Your task to perform on an android device: open a new tab in the chrome app Image 0: 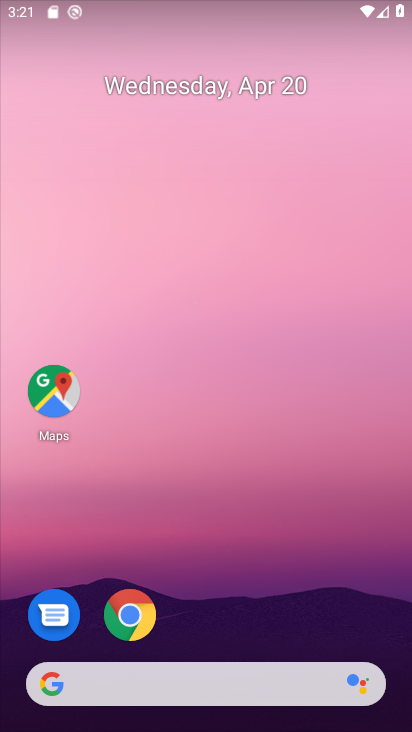
Step 0: click (131, 615)
Your task to perform on an android device: open a new tab in the chrome app Image 1: 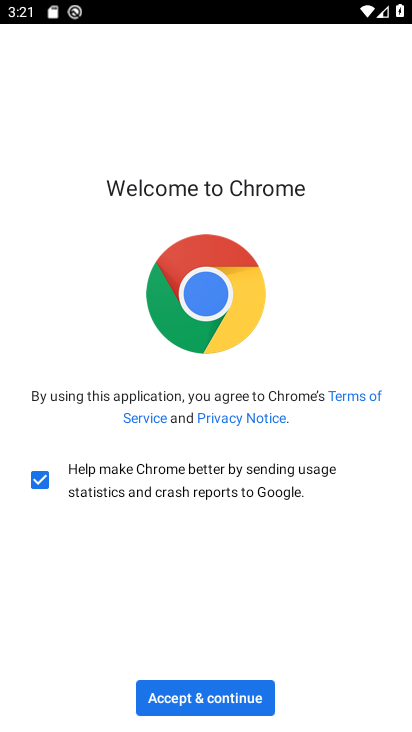
Step 1: click (221, 687)
Your task to perform on an android device: open a new tab in the chrome app Image 2: 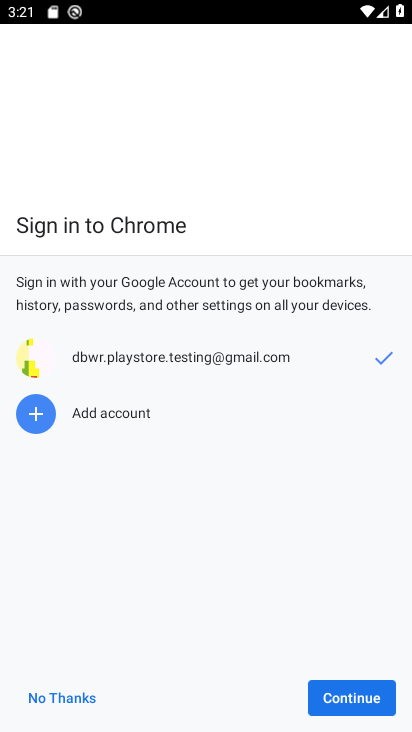
Step 2: click (363, 693)
Your task to perform on an android device: open a new tab in the chrome app Image 3: 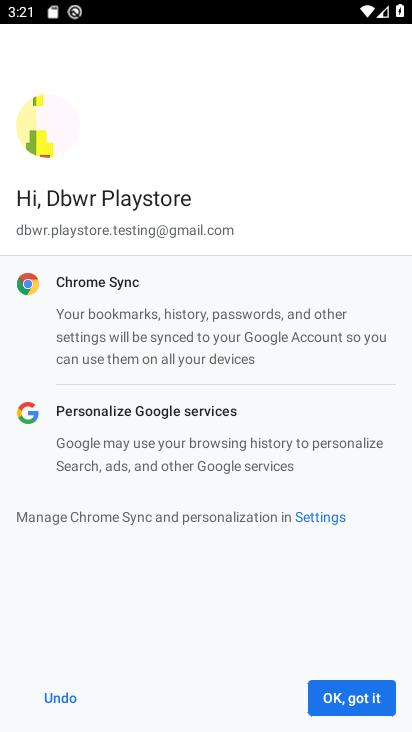
Step 3: click (363, 693)
Your task to perform on an android device: open a new tab in the chrome app Image 4: 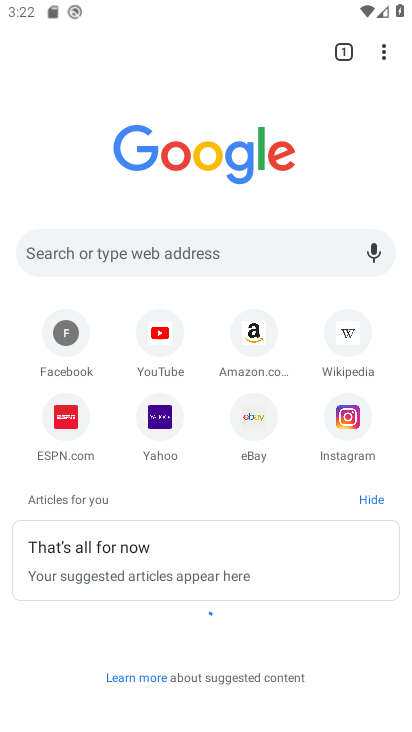
Step 4: click (351, 53)
Your task to perform on an android device: open a new tab in the chrome app Image 5: 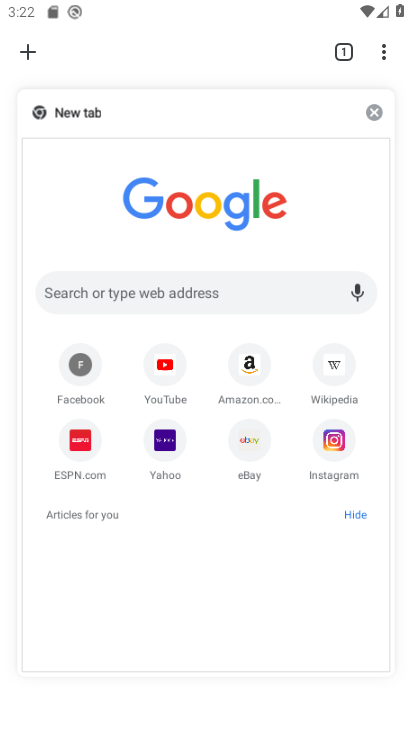
Step 5: click (37, 46)
Your task to perform on an android device: open a new tab in the chrome app Image 6: 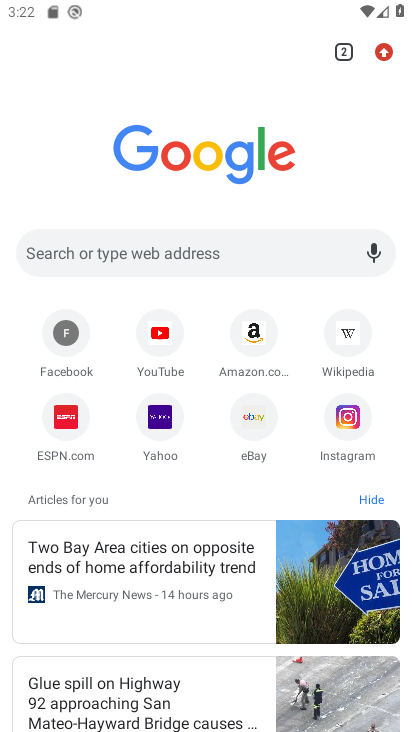
Step 6: task complete